Your task to perform on an android device: search for starred emails in the gmail app Image 0: 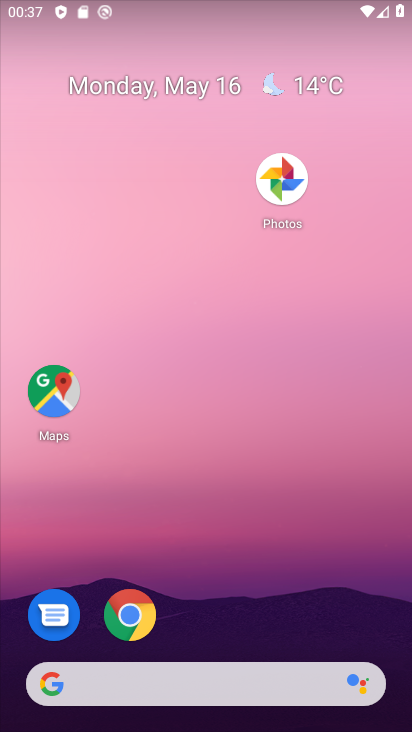
Step 0: drag from (364, 629) to (315, 296)
Your task to perform on an android device: search for starred emails in the gmail app Image 1: 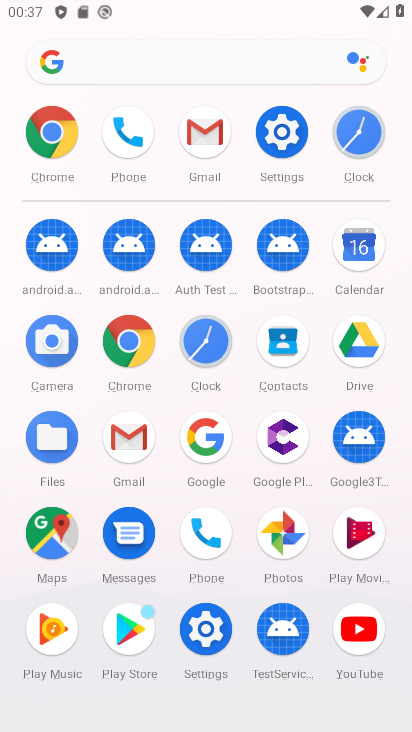
Step 1: click (143, 457)
Your task to perform on an android device: search for starred emails in the gmail app Image 2: 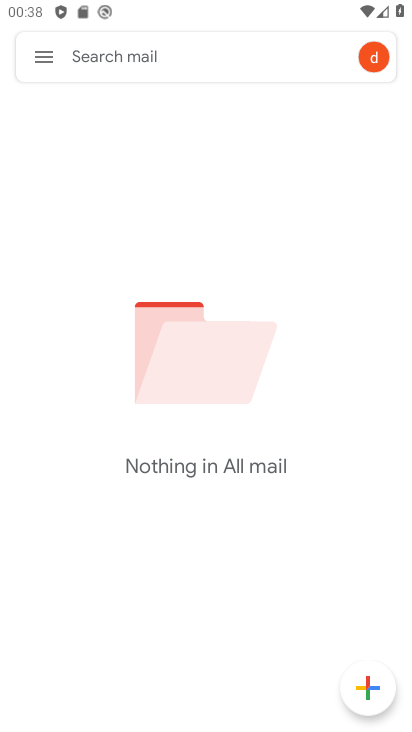
Step 2: click (47, 59)
Your task to perform on an android device: search for starred emails in the gmail app Image 3: 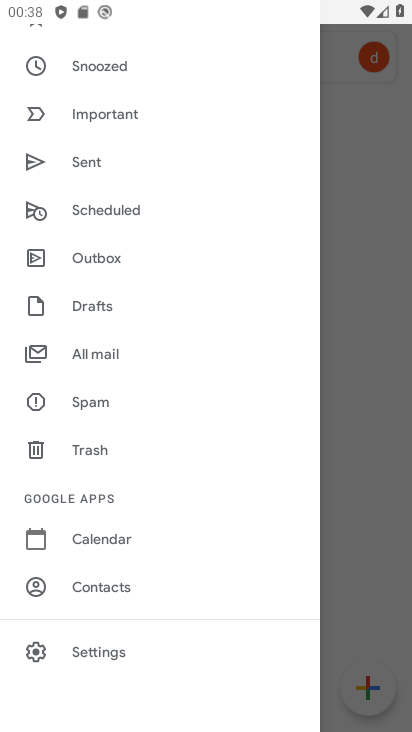
Step 3: drag from (119, 165) to (155, 408)
Your task to perform on an android device: search for starred emails in the gmail app Image 4: 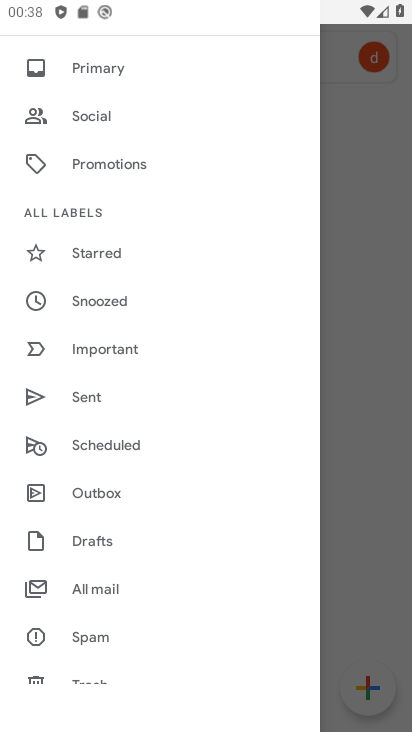
Step 4: click (130, 256)
Your task to perform on an android device: search for starred emails in the gmail app Image 5: 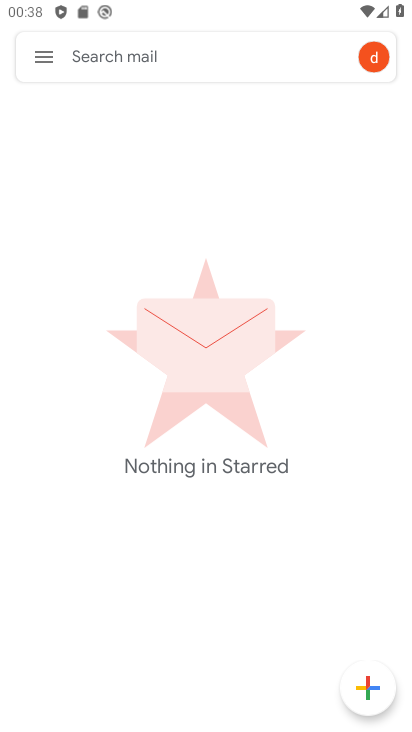
Step 5: task complete